Your task to perform on an android device: Open the stopwatch Image 0: 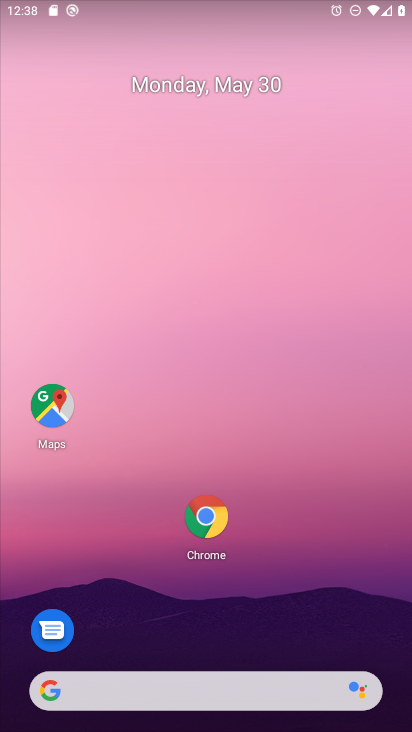
Step 0: press home button
Your task to perform on an android device: Open the stopwatch Image 1: 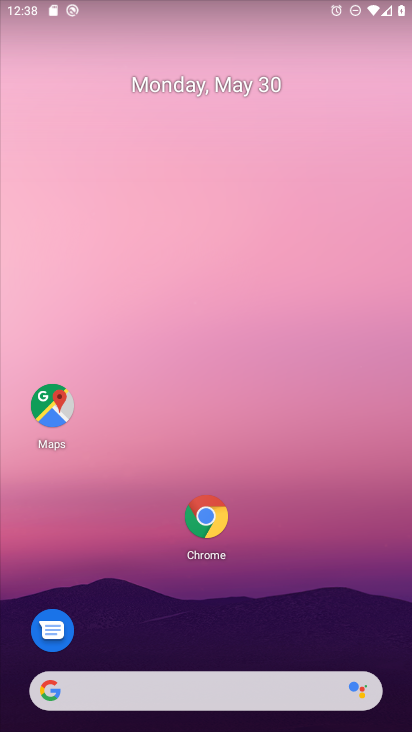
Step 1: drag from (136, 686) to (243, 152)
Your task to perform on an android device: Open the stopwatch Image 2: 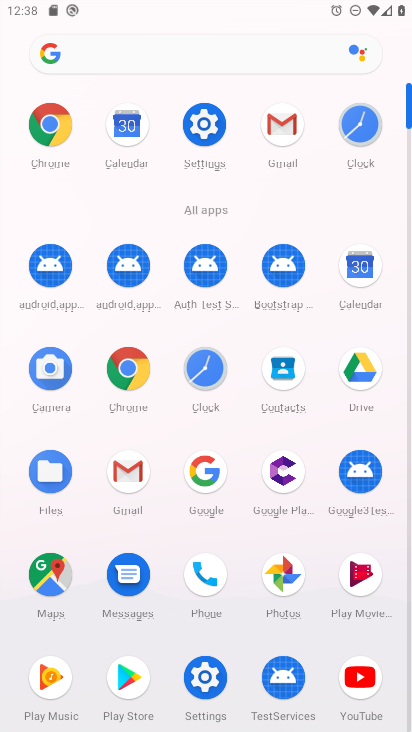
Step 2: click (360, 132)
Your task to perform on an android device: Open the stopwatch Image 3: 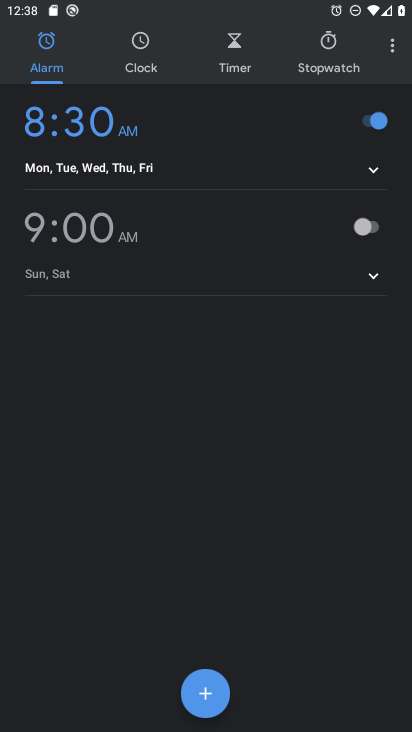
Step 3: click (314, 60)
Your task to perform on an android device: Open the stopwatch Image 4: 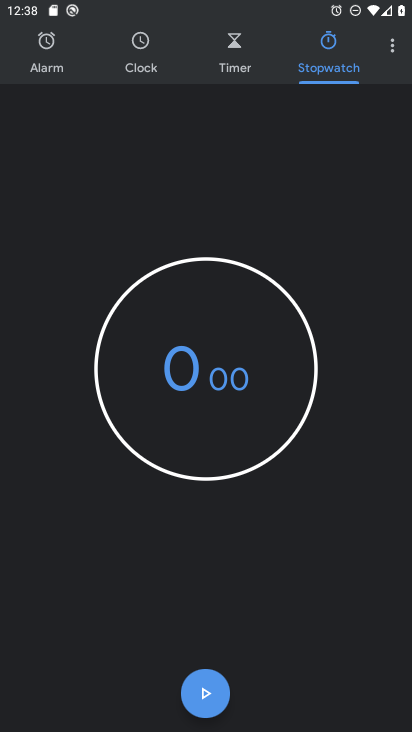
Step 4: task complete